Your task to perform on an android device: delete browsing data in the chrome app Image 0: 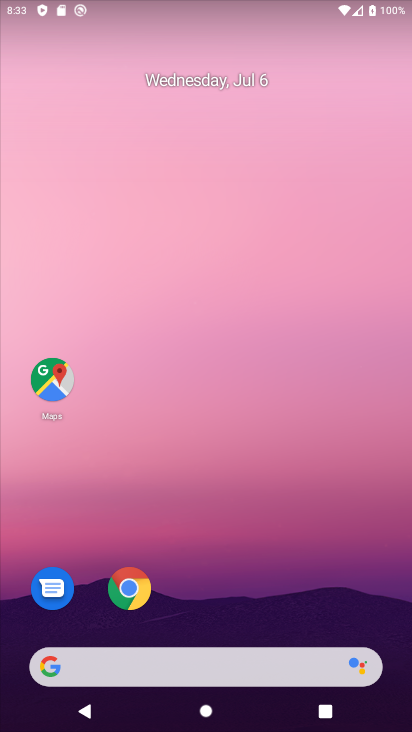
Step 0: click (125, 586)
Your task to perform on an android device: delete browsing data in the chrome app Image 1: 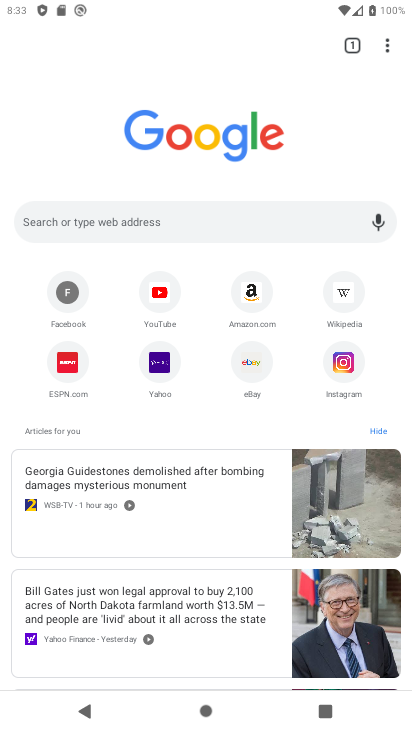
Step 1: click (385, 47)
Your task to perform on an android device: delete browsing data in the chrome app Image 2: 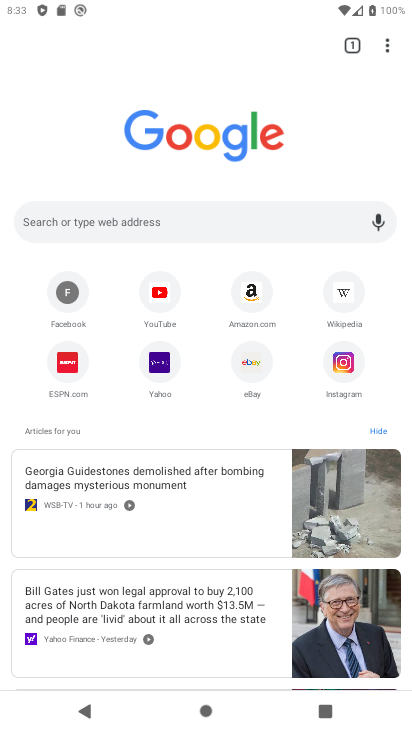
Step 2: click (385, 47)
Your task to perform on an android device: delete browsing data in the chrome app Image 3: 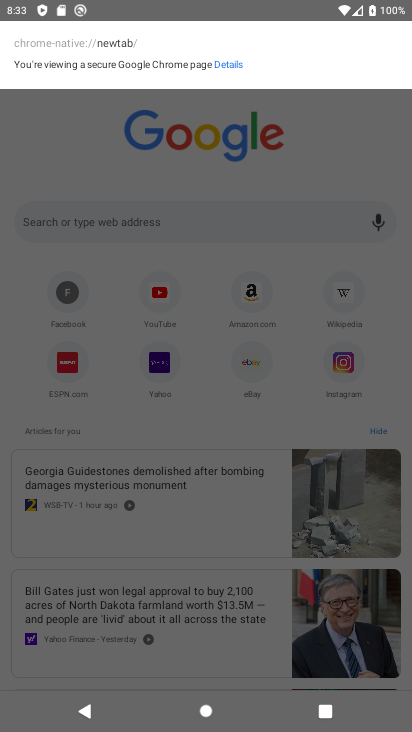
Step 3: click (309, 117)
Your task to perform on an android device: delete browsing data in the chrome app Image 4: 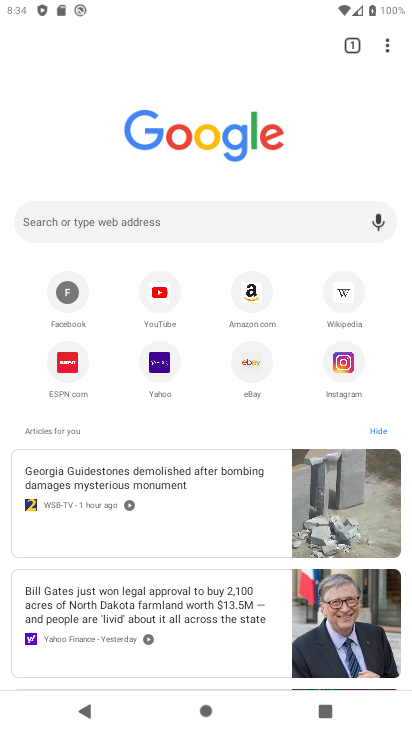
Step 4: click (385, 46)
Your task to perform on an android device: delete browsing data in the chrome app Image 5: 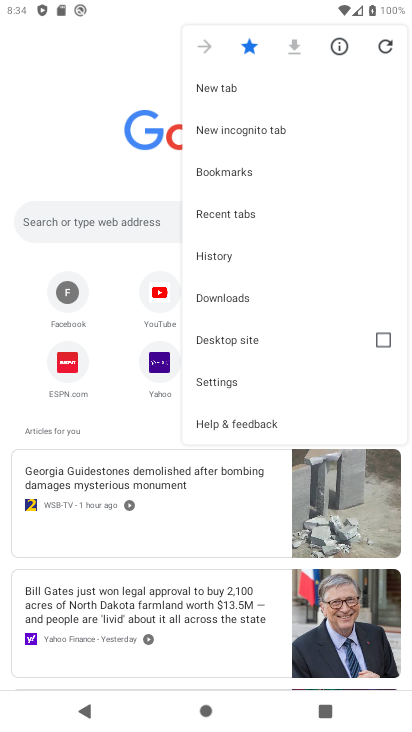
Step 5: click (212, 253)
Your task to perform on an android device: delete browsing data in the chrome app Image 6: 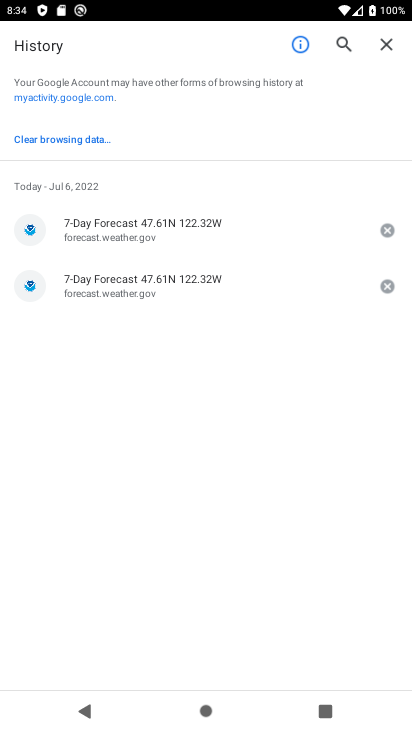
Step 6: click (46, 128)
Your task to perform on an android device: delete browsing data in the chrome app Image 7: 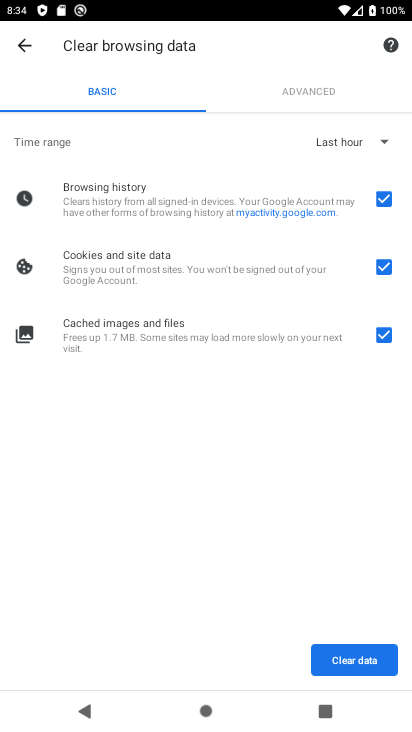
Step 7: click (353, 662)
Your task to perform on an android device: delete browsing data in the chrome app Image 8: 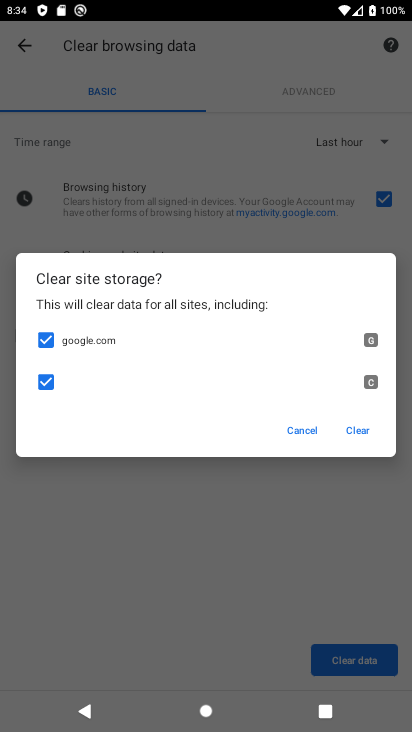
Step 8: click (356, 428)
Your task to perform on an android device: delete browsing data in the chrome app Image 9: 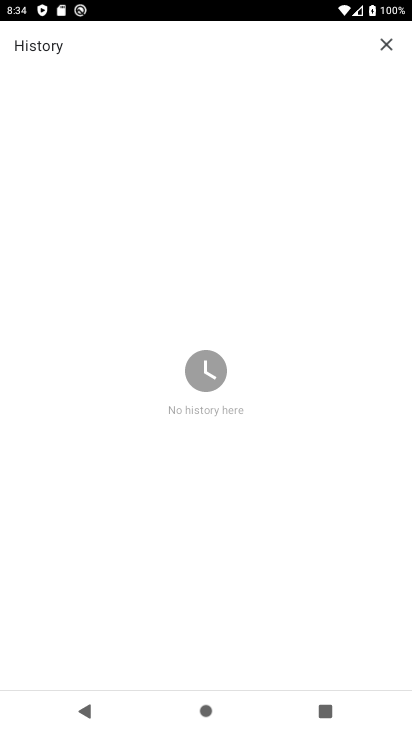
Step 9: task complete